Your task to perform on an android device: change timer sound Image 0: 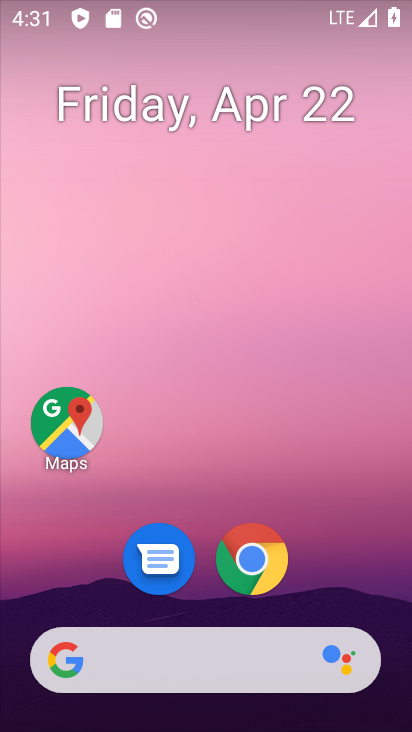
Step 0: drag from (325, 565) to (190, 31)
Your task to perform on an android device: change timer sound Image 1: 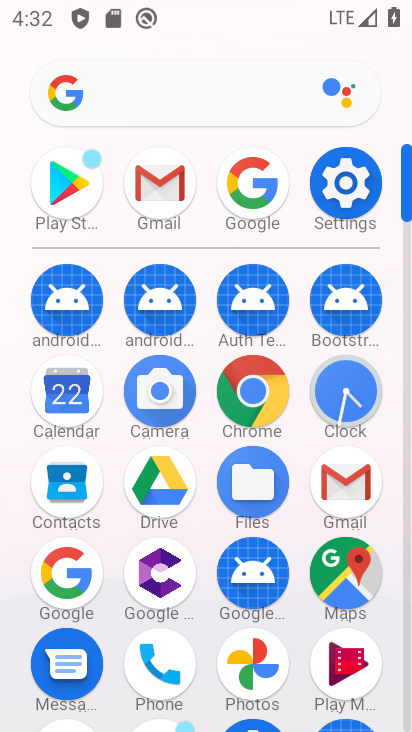
Step 1: click (348, 405)
Your task to perform on an android device: change timer sound Image 2: 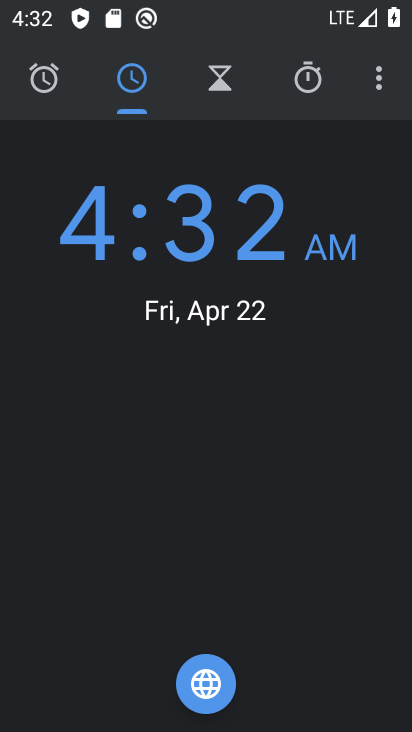
Step 2: click (376, 70)
Your task to perform on an android device: change timer sound Image 3: 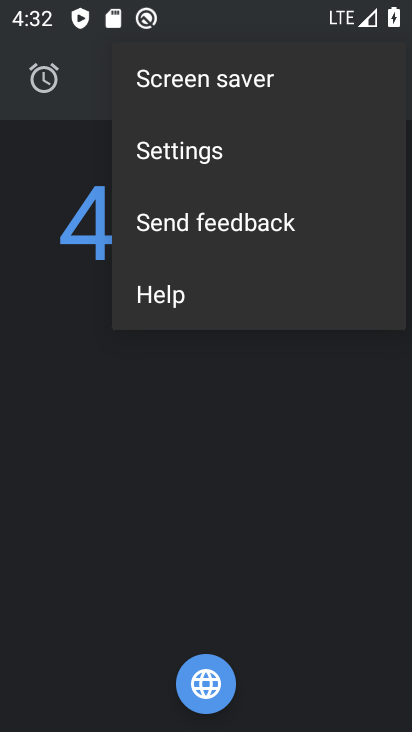
Step 3: click (223, 150)
Your task to perform on an android device: change timer sound Image 4: 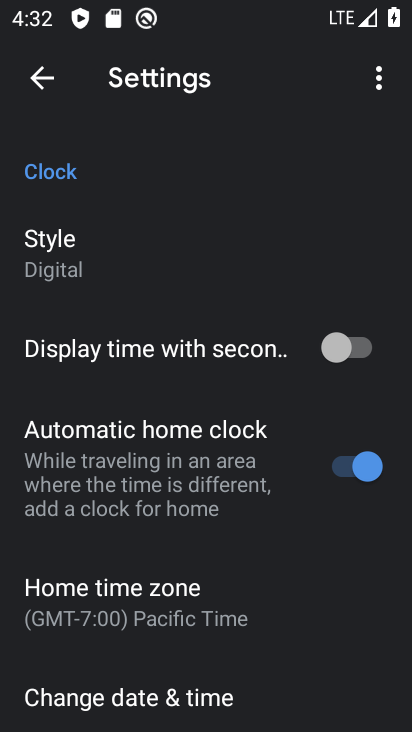
Step 4: drag from (280, 594) to (226, 100)
Your task to perform on an android device: change timer sound Image 5: 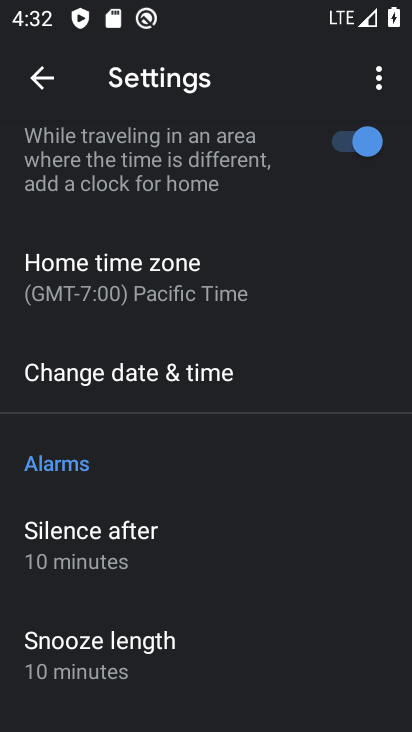
Step 5: drag from (248, 591) to (233, 133)
Your task to perform on an android device: change timer sound Image 6: 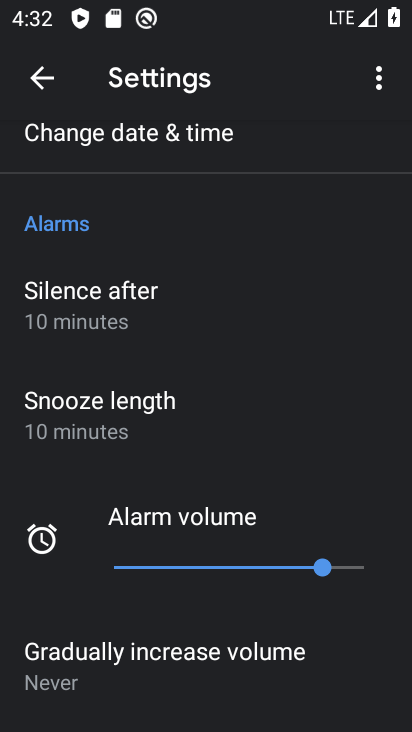
Step 6: drag from (190, 691) to (192, 172)
Your task to perform on an android device: change timer sound Image 7: 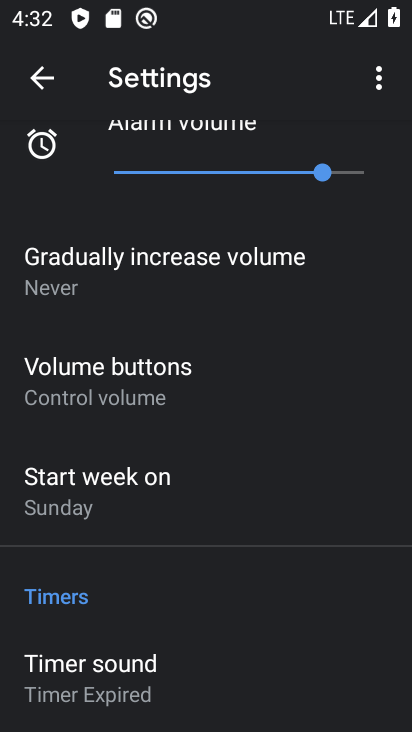
Step 7: click (138, 673)
Your task to perform on an android device: change timer sound Image 8: 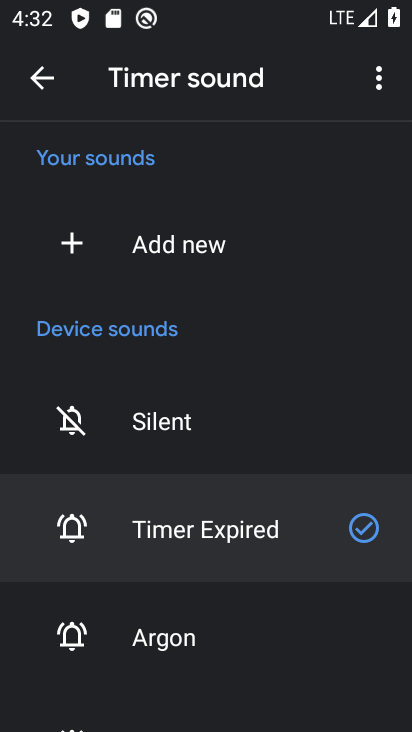
Step 8: click (164, 633)
Your task to perform on an android device: change timer sound Image 9: 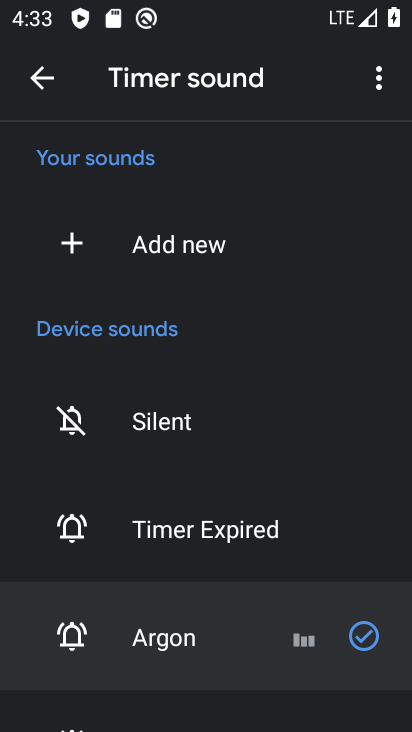
Step 9: task complete